Your task to perform on an android device: delete location history Image 0: 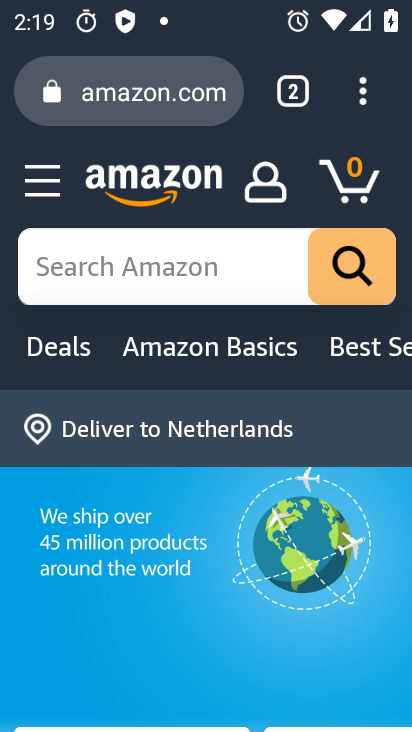
Step 0: press home button
Your task to perform on an android device: delete location history Image 1: 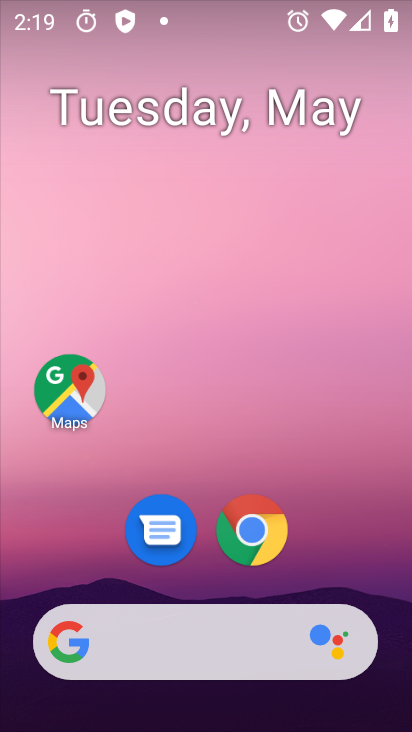
Step 1: drag from (210, 603) to (215, 32)
Your task to perform on an android device: delete location history Image 2: 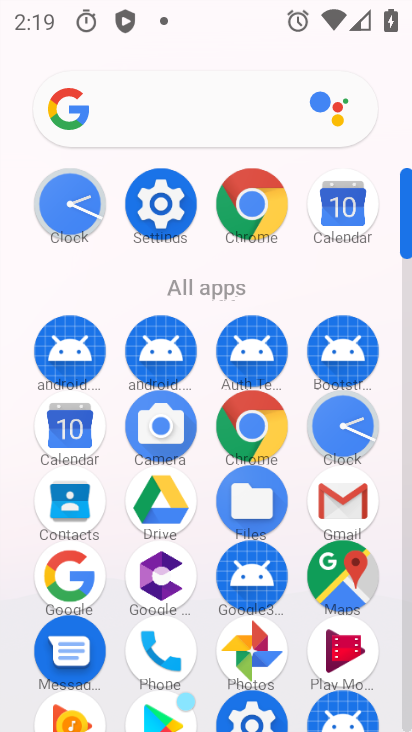
Step 2: click (345, 583)
Your task to perform on an android device: delete location history Image 3: 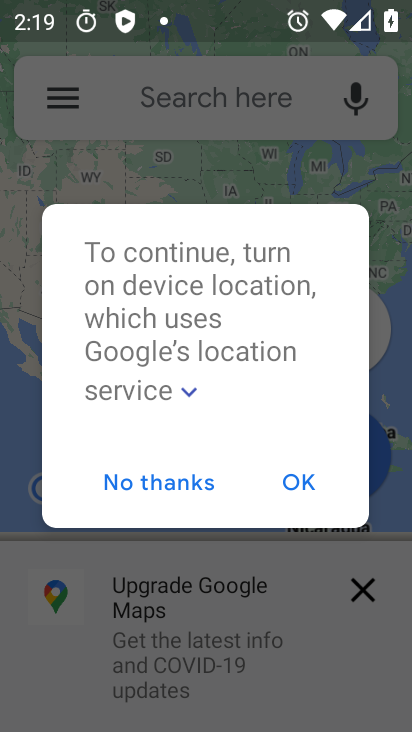
Step 3: click (286, 485)
Your task to perform on an android device: delete location history Image 4: 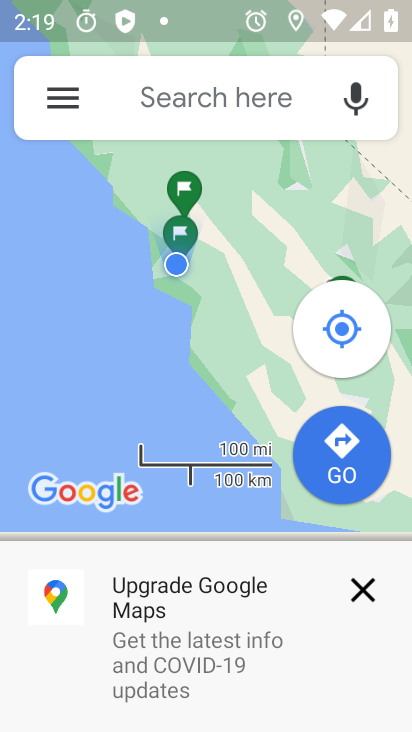
Step 4: click (57, 81)
Your task to perform on an android device: delete location history Image 5: 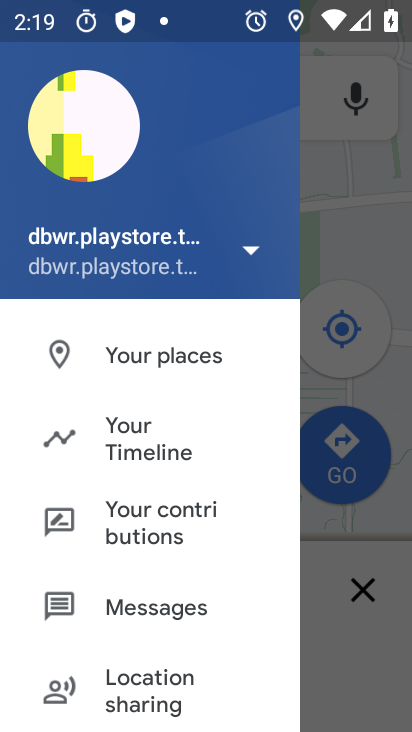
Step 5: click (170, 449)
Your task to perform on an android device: delete location history Image 6: 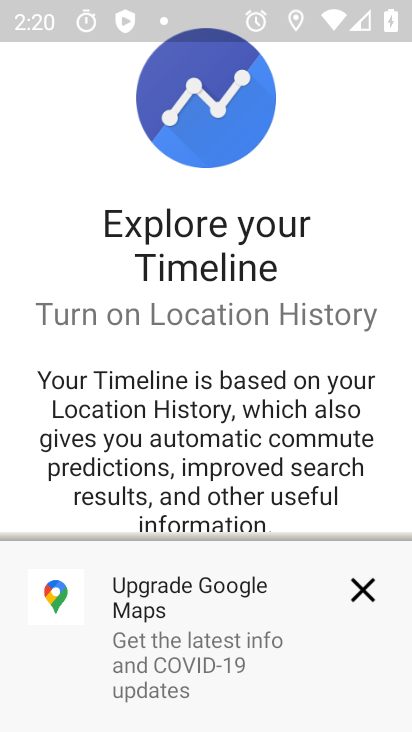
Step 6: click (362, 584)
Your task to perform on an android device: delete location history Image 7: 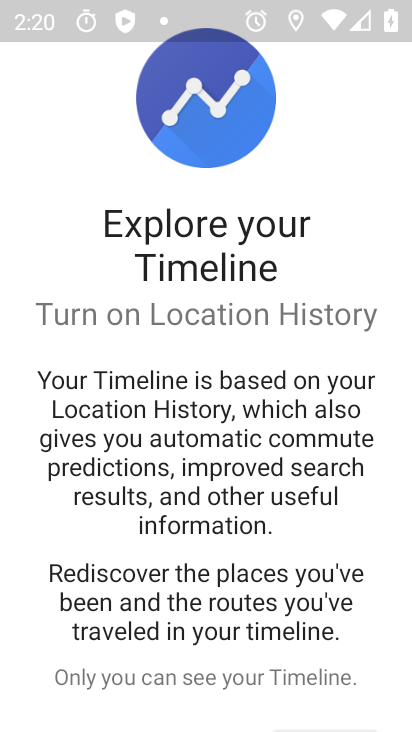
Step 7: drag from (293, 627) to (203, 44)
Your task to perform on an android device: delete location history Image 8: 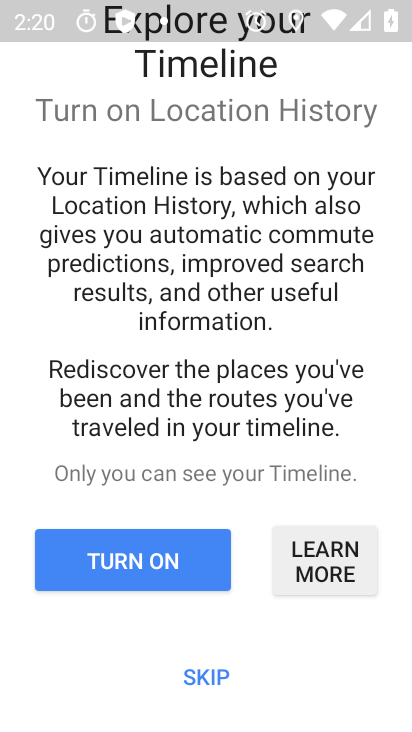
Step 8: click (214, 679)
Your task to perform on an android device: delete location history Image 9: 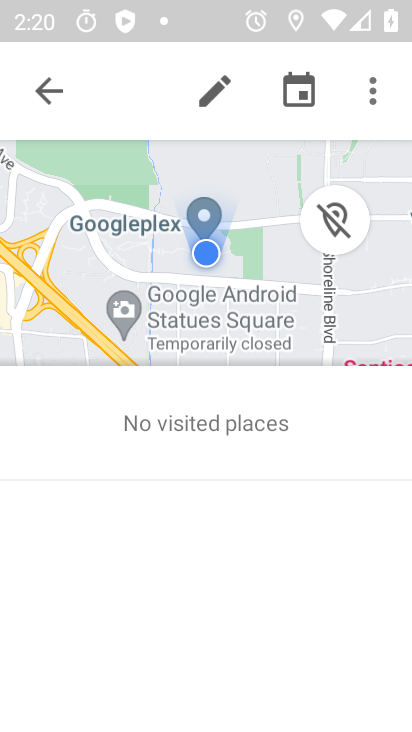
Step 9: click (368, 87)
Your task to perform on an android device: delete location history Image 10: 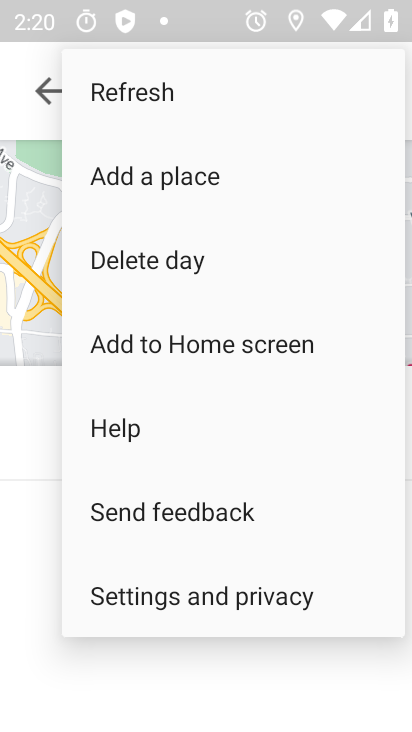
Step 10: drag from (210, 586) to (177, 114)
Your task to perform on an android device: delete location history Image 11: 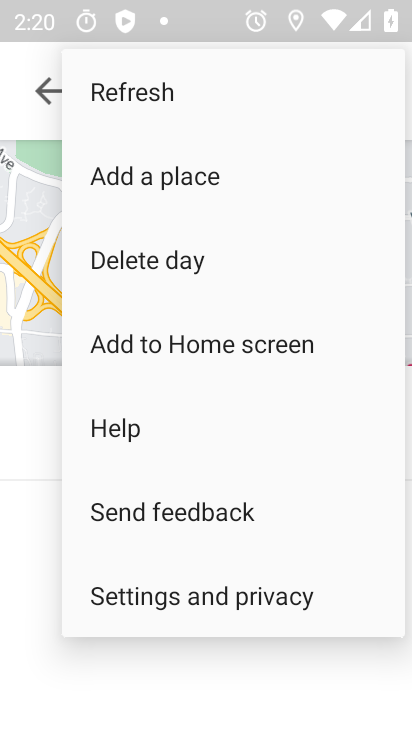
Step 11: drag from (206, 571) to (178, 55)
Your task to perform on an android device: delete location history Image 12: 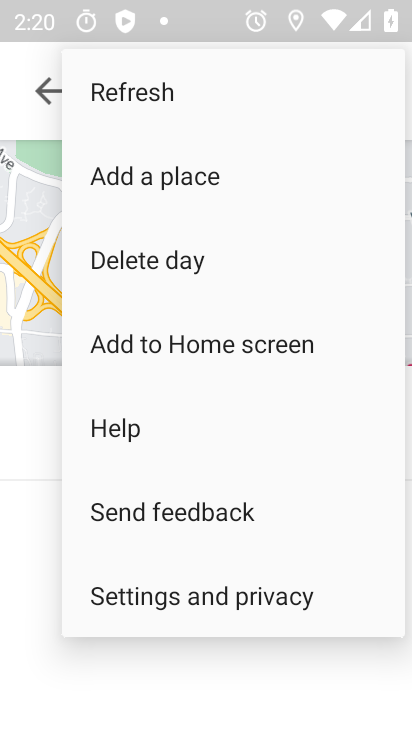
Step 12: click (244, 601)
Your task to perform on an android device: delete location history Image 13: 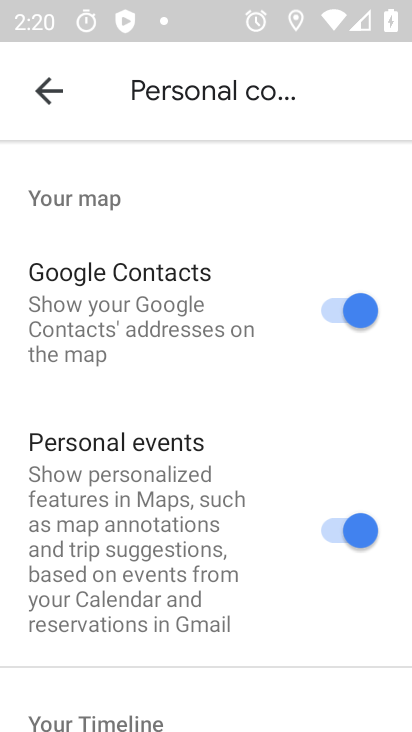
Step 13: drag from (170, 602) to (101, 115)
Your task to perform on an android device: delete location history Image 14: 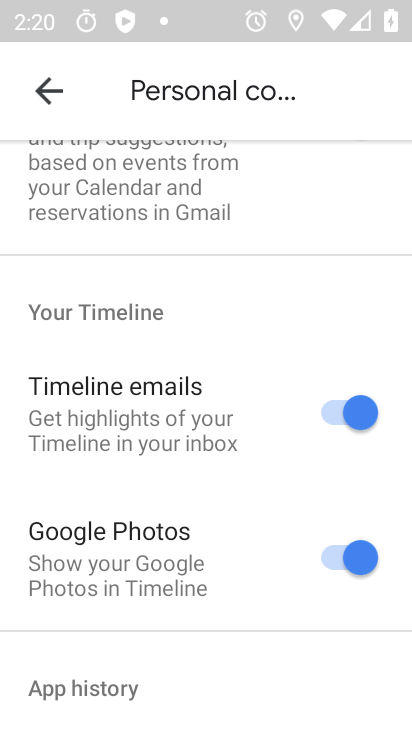
Step 14: drag from (234, 535) to (156, 3)
Your task to perform on an android device: delete location history Image 15: 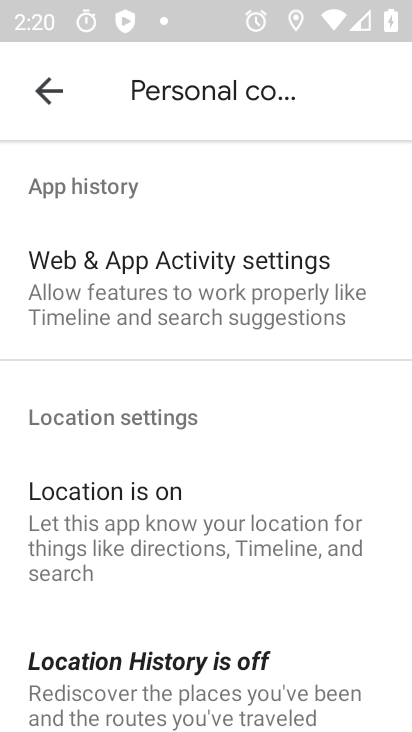
Step 15: drag from (190, 660) to (164, 182)
Your task to perform on an android device: delete location history Image 16: 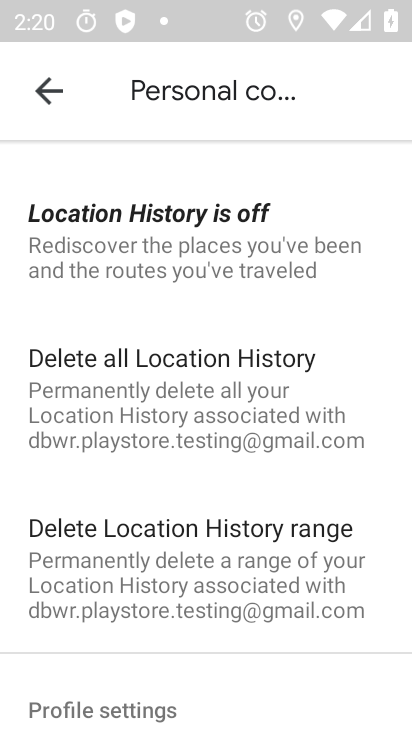
Step 16: click (210, 550)
Your task to perform on an android device: delete location history Image 17: 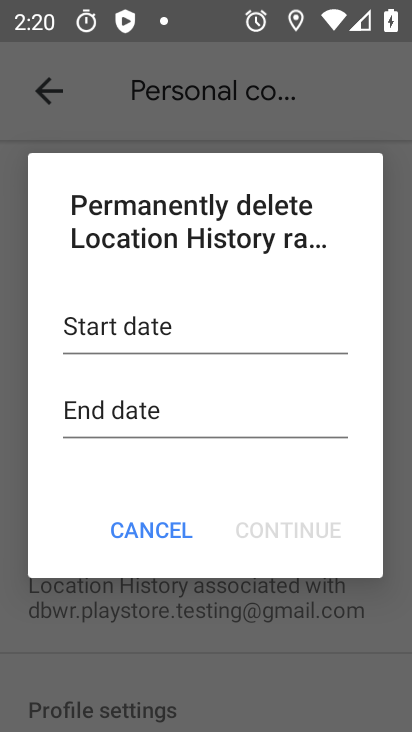
Step 17: click (159, 523)
Your task to perform on an android device: delete location history Image 18: 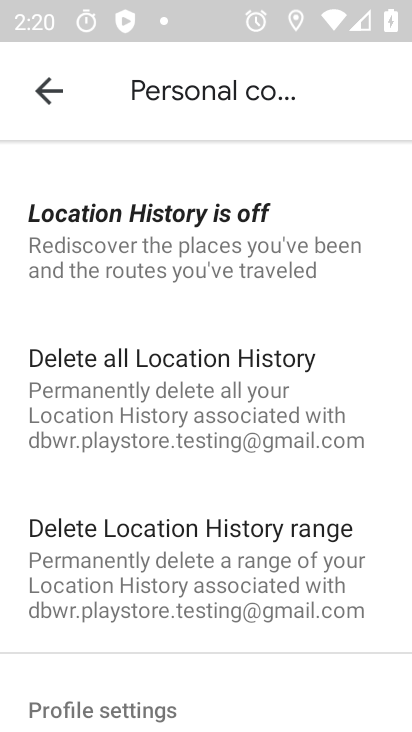
Step 18: click (225, 403)
Your task to perform on an android device: delete location history Image 19: 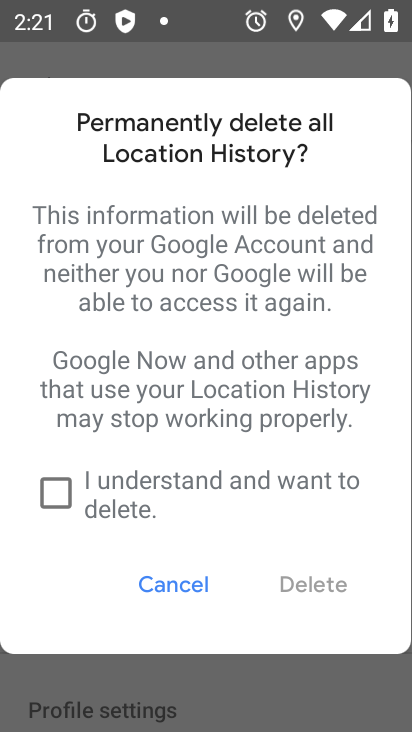
Step 19: click (56, 485)
Your task to perform on an android device: delete location history Image 20: 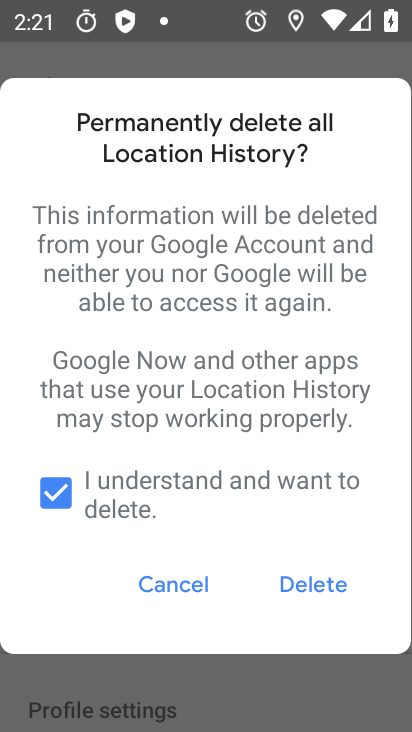
Step 20: click (309, 579)
Your task to perform on an android device: delete location history Image 21: 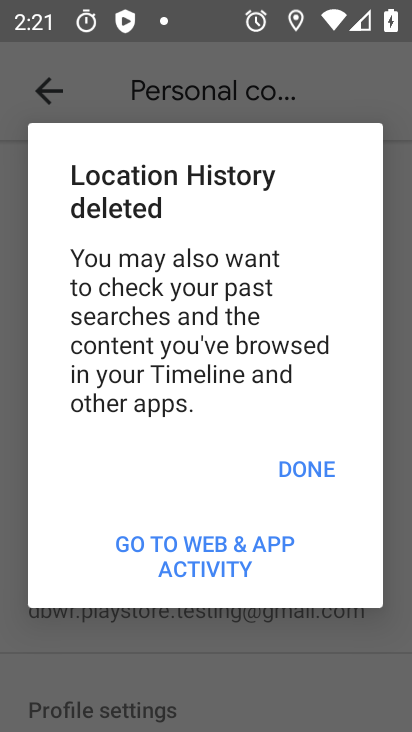
Step 21: click (296, 481)
Your task to perform on an android device: delete location history Image 22: 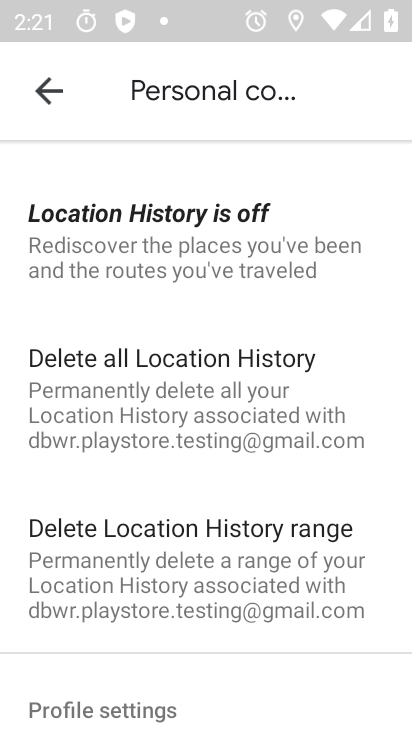
Step 22: task complete